Your task to perform on an android device: turn off priority inbox in the gmail app Image 0: 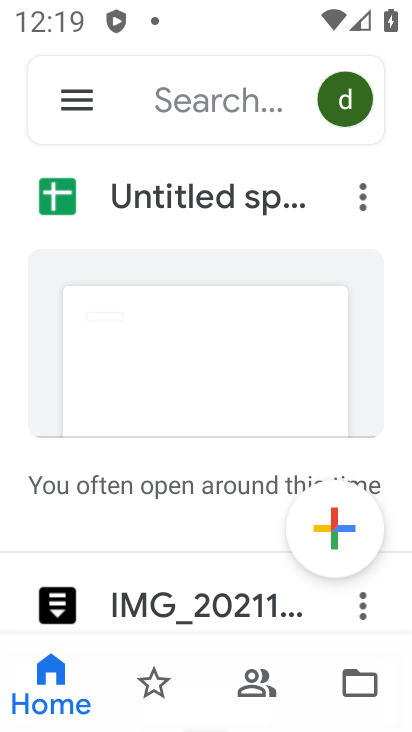
Step 0: press home button
Your task to perform on an android device: turn off priority inbox in the gmail app Image 1: 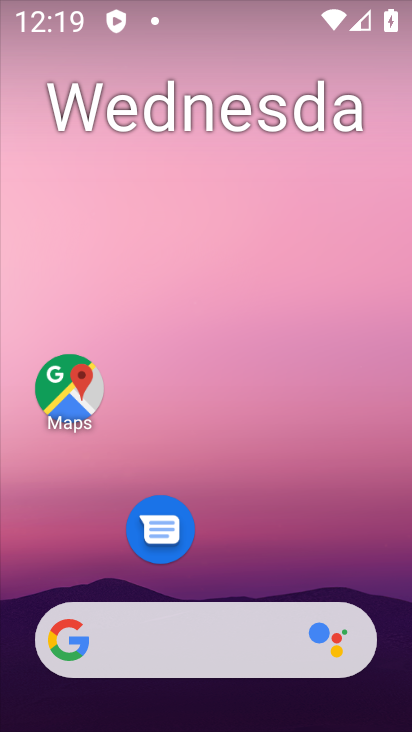
Step 1: drag from (236, 579) to (368, 44)
Your task to perform on an android device: turn off priority inbox in the gmail app Image 2: 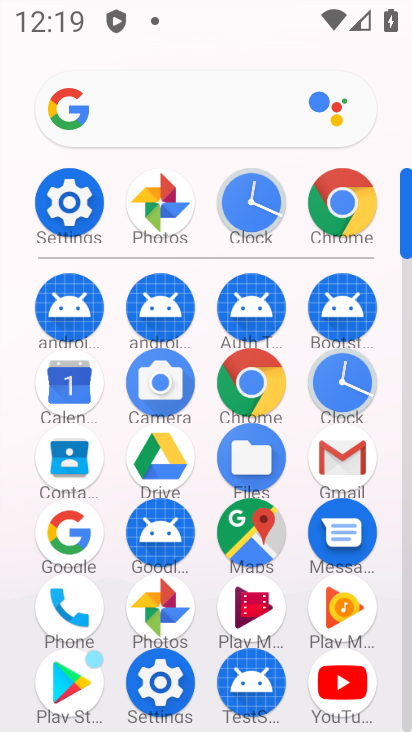
Step 2: click (329, 466)
Your task to perform on an android device: turn off priority inbox in the gmail app Image 3: 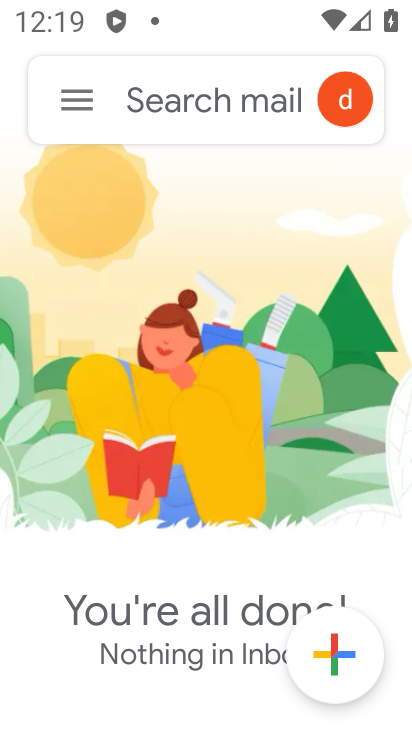
Step 3: click (81, 103)
Your task to perform on an android device: turn off priority inbox in the gmail app Image 4: 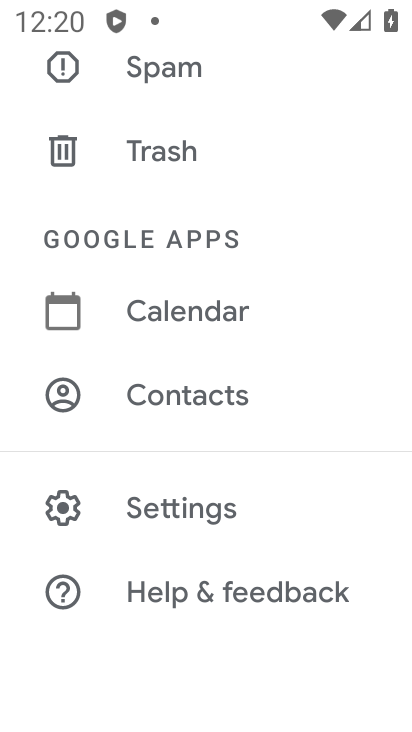
Step 4: click (170, 509)
Your task to perform on an android device: turn off priority inbox in the gmail app Image 5: 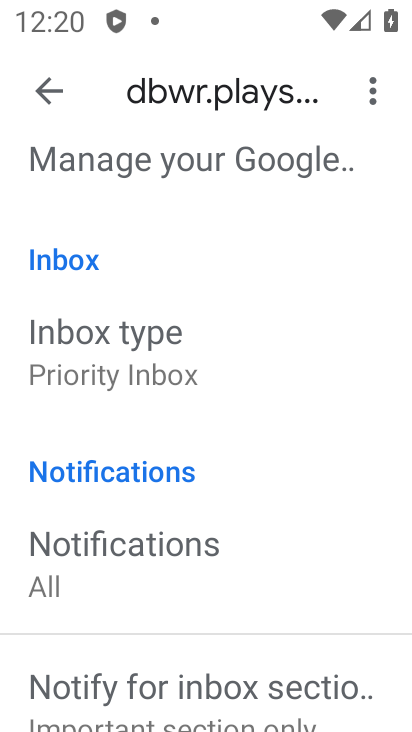
Step 5: click (150, 380)
Your task to perform on an android device: turn off priority inbox in the gmail app Image 6: 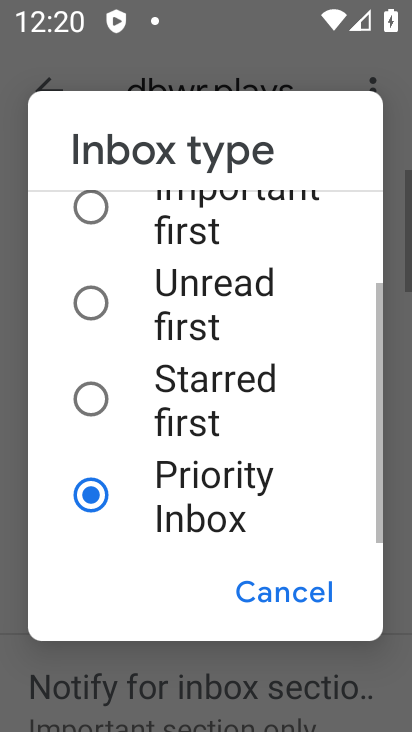
Step 6: click (167, 400)
Your task to perform on an android device: turn off priority inbox in the gmail app Image 7: 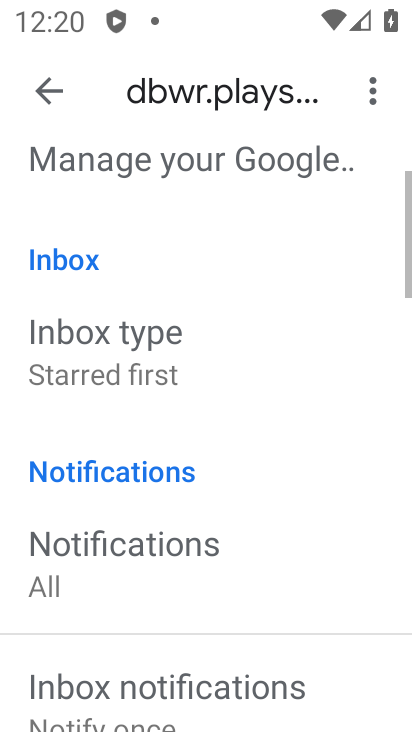
Step 7: task complete